Your task to perform on an android device: change text size in settings app Image 0: 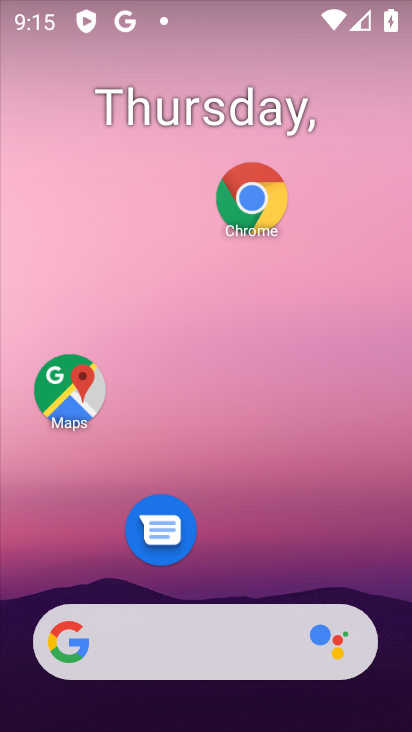
Step 0: drag from (233, 536) to (245, 14)
Your task to perform on an android device: change text size in settings app Image 1: 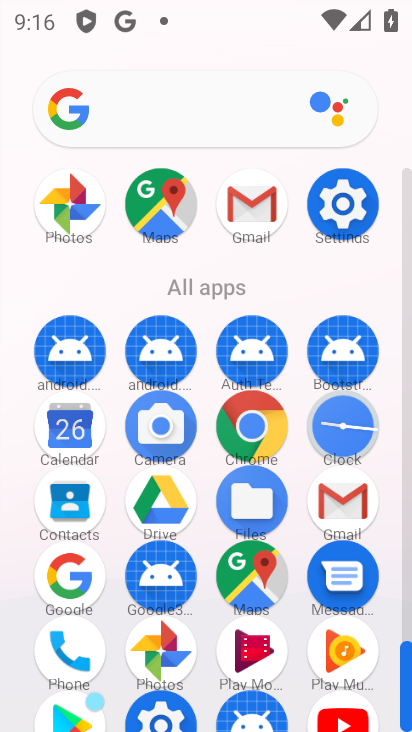
Step 1: click (356, 240)
Your task to perform on an android device: change text size in settings app Image 2: 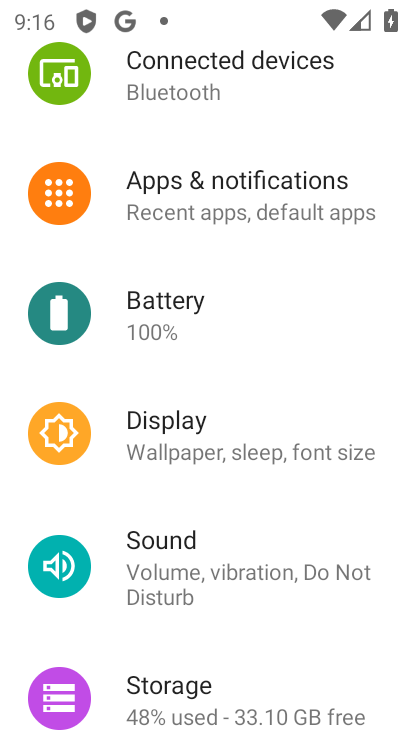
Step 2: click (162, 431)
Your task to perform on an android device: change text size in settings app Image 3: 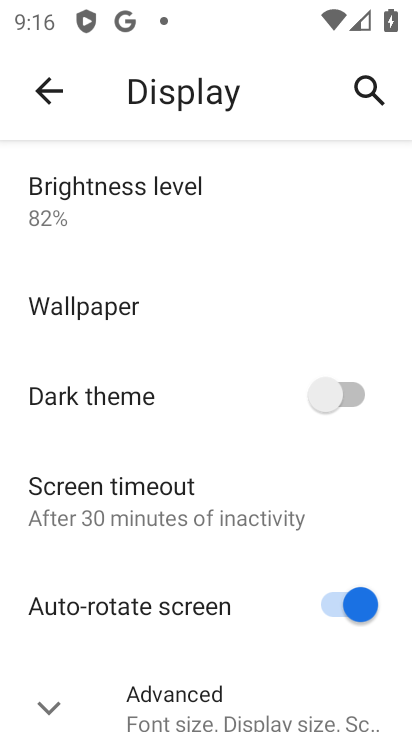
Step 3: drag from (177, 622) to (167, 316)
Your task to perform on an android device: change text size in settings app Image 4: 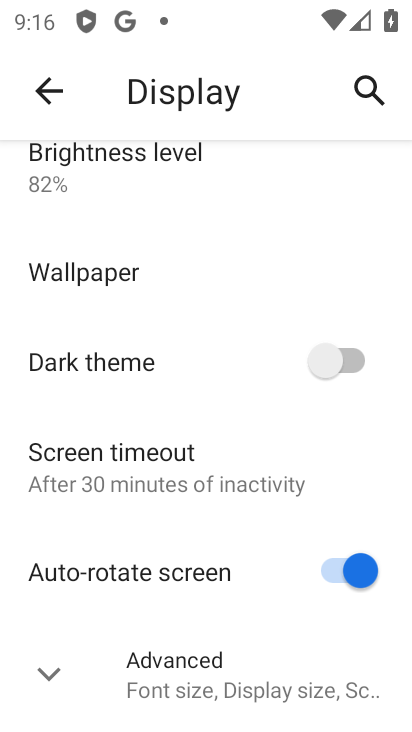
Step 4: click (196, 677)
Your task to perform on an android device: change text size in settings app Image 5: 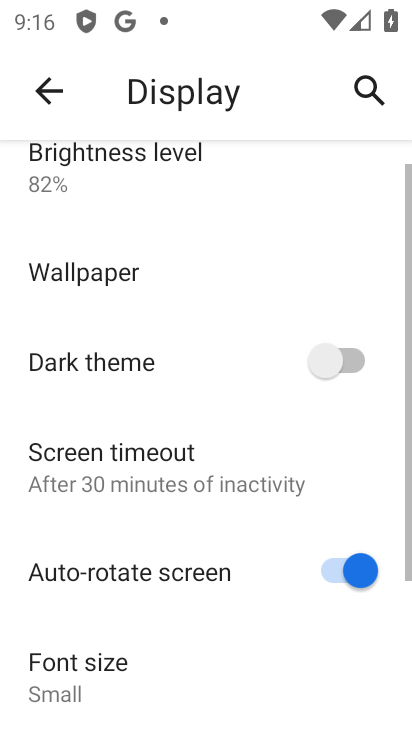
Step 5: drag from (196, 677) to (185, 454)
Your task to perform on an android device: change text size in settings app Image 6: 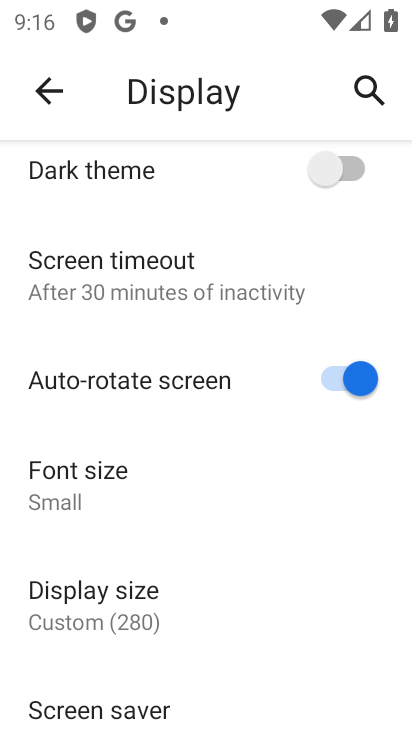
Step 6: click (79, 503)
Your task to perform on an android device: change text size in settings app Image 7: 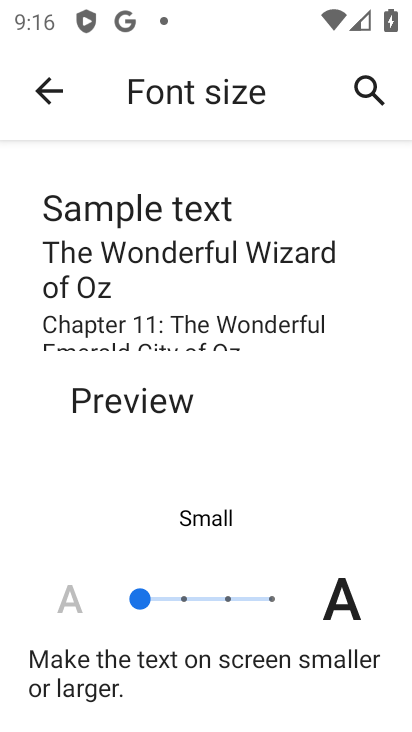
Step 7: click (179, 597)
Your task to perform on an android device: change text size in settings app Image 8: 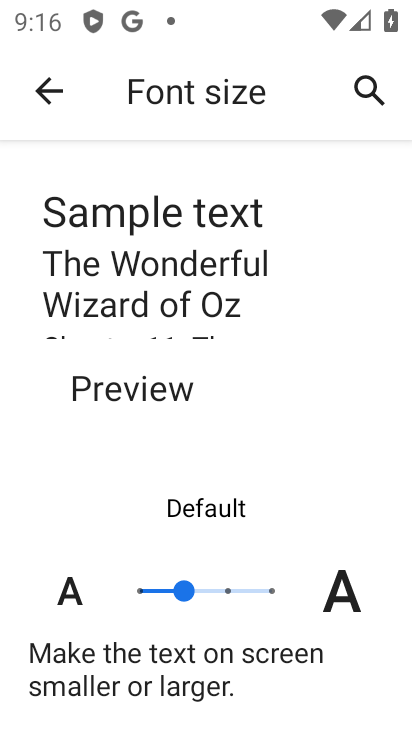
Step 8: task complete